Your task to perform on an android device: Do I have any events tomorrow? Image 0: 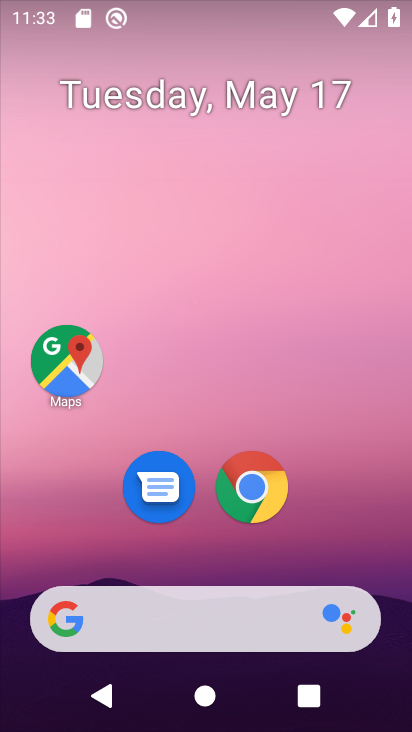
Step 0: drag from (351, 543) to (315, 94)
Your task to perform on an android device: Do I have any events tomorrow? Image 1: 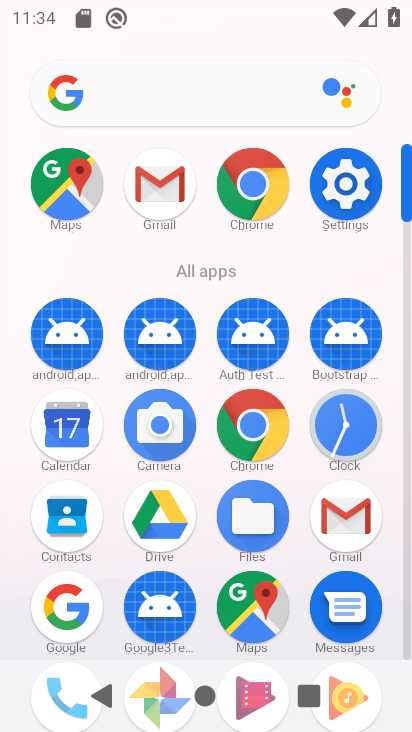
Step 1: click (72, 452)
Your task to perform on an android device: Do I have any events tomorrow? Image 2: 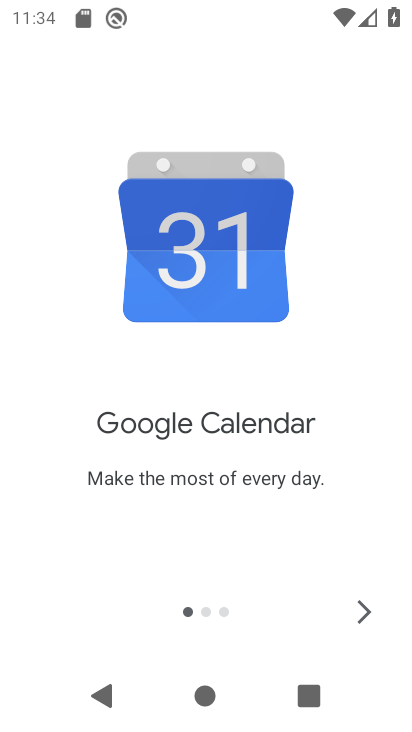
Step 2: click (356, 618)
Your task to perform on an android device: Do I have any events tomorrow? Image 3: 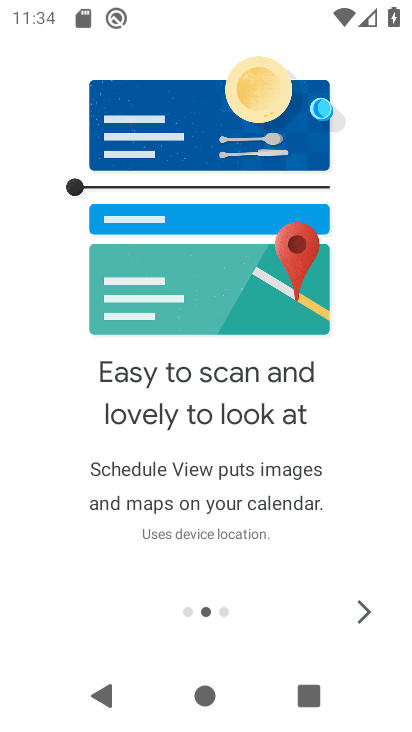
Step 3: click (356, 618)
Your task to perform on an android device: Do I have any events tomorrow? Image 4: 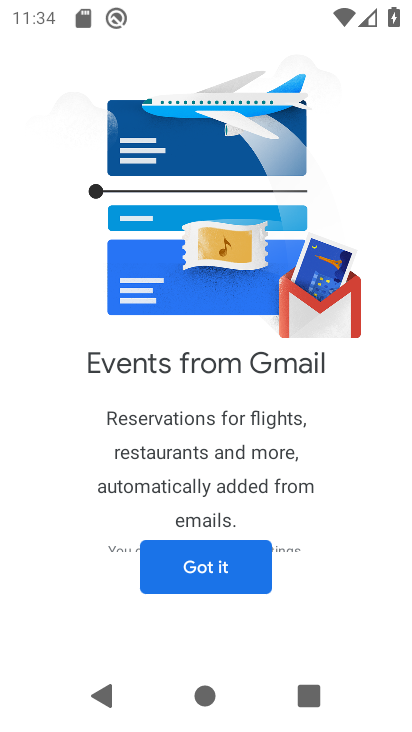
Step 4: click (246, 579)
Your task to perform on an android device: Do I have any events tomorrow? Image 5: 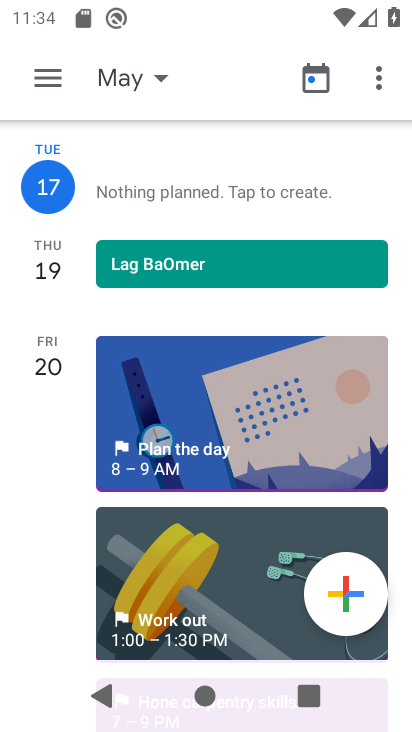
Step 5: click (142, 82)
Your task to perform on an android device: Do I have any events tomorrow? Image 6: 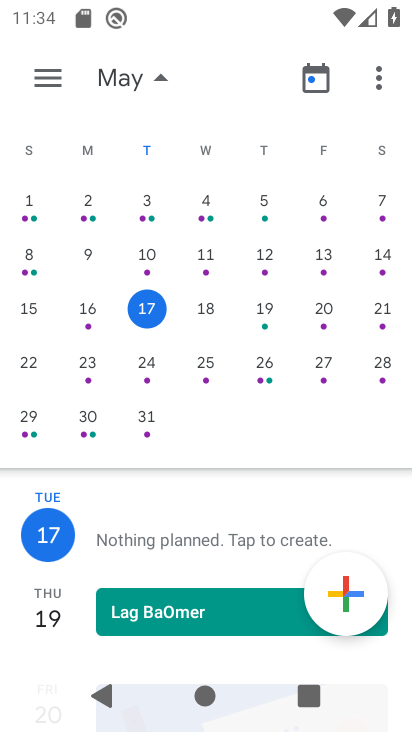
Step 6: click (45, 81)
Your task to perform on an android device: Do I have any events tomorrow? Image 7: 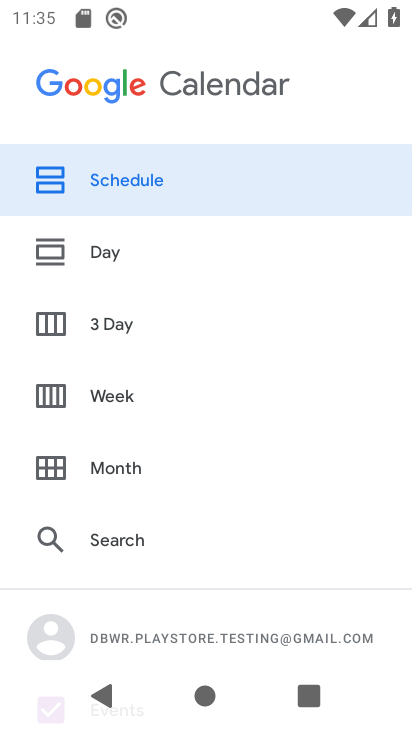
Step 7: drag from (204, 627) to (178, 165)
Your task to perform on an android device: Do I have any events tomorrow? Image 8: 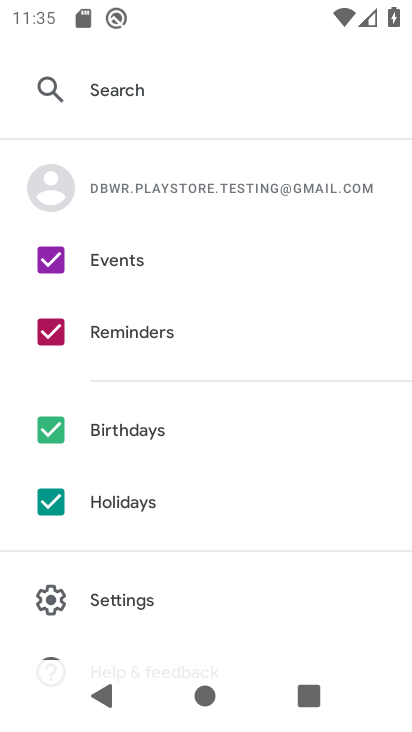
Step 8: click (53, 498)
Your task to perform on an android device: Do I have any events tomorrow? Image 9: 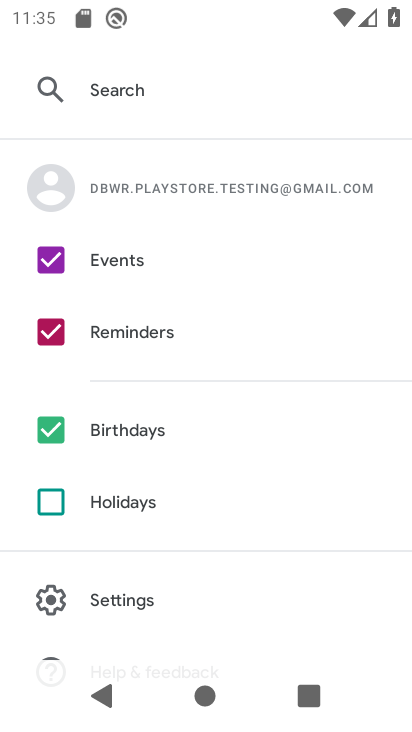
Step 9: click (45, 436)
Your task to perform on an android device: Do I have any events tomorrow? Image 10: 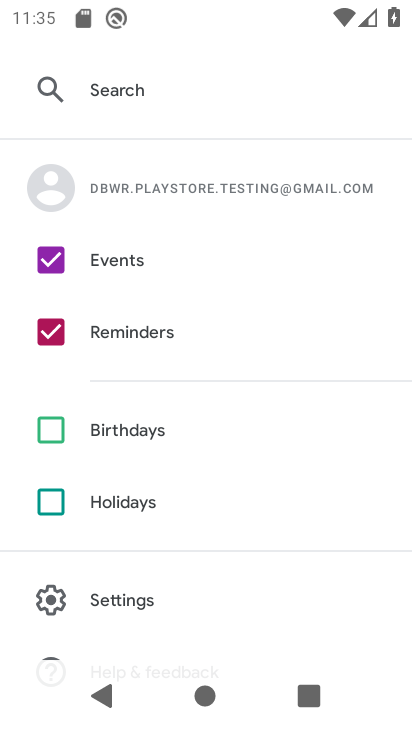
Step 10: click (44, 338)
Your task to perform on an android device: Do I have any events tomorrow? Image 11: 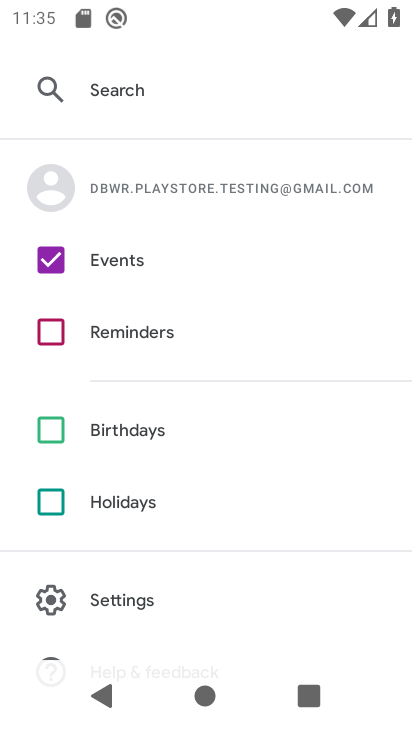
Step 11: drag from (198, 95) to (214, 688)
Your task to perform on an android device: Do I have any events tomorrow? Image 12: 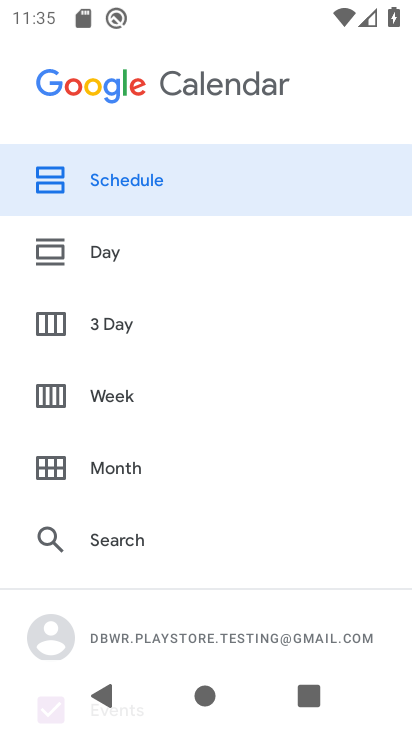
Step 12: click (141, 250)
Your task to perform on an android device: Do I have any events tomorrow? Image 13: 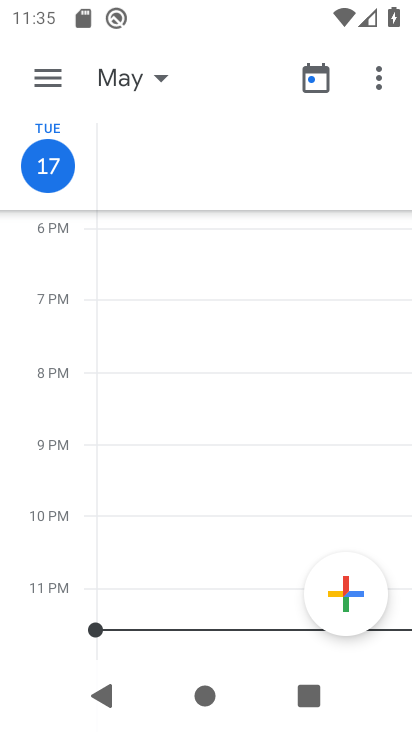
Step 13: click (137, 75)
Your task to perform on an android device: Do I have any events tomorrow? Image 14: 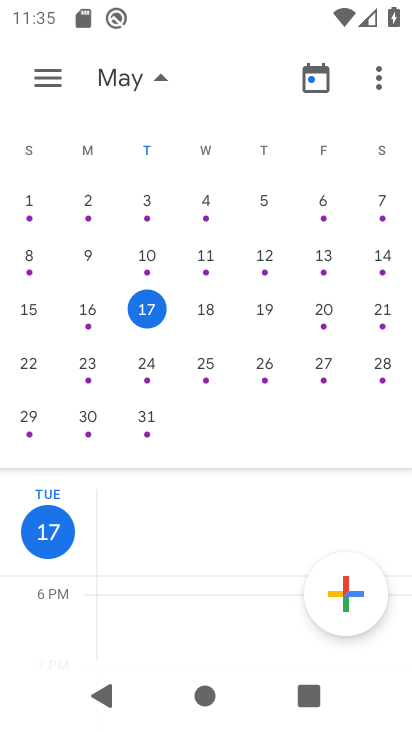
Step 14: click (269, 319)
Your task to perform on an android device: Do I have any events tomorrow? Image 15: 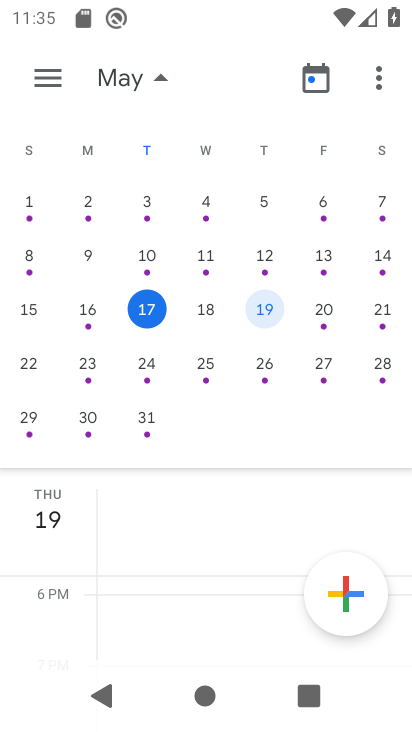
Step 15: click (167, 86)
Your task to perform on an android device: Do I have any events tomorrow? Image 16: 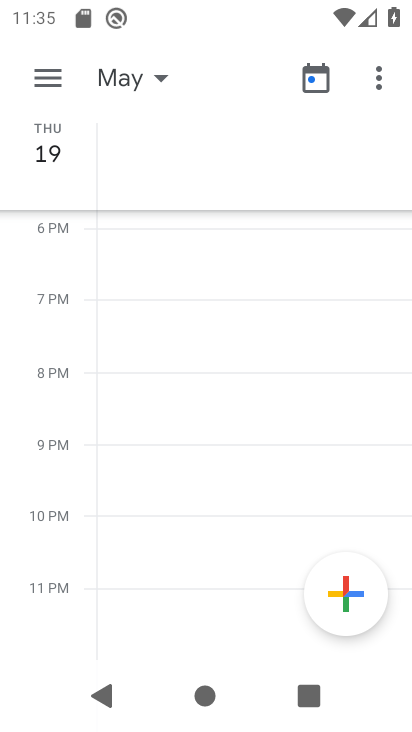
Step 16: task complete